Your task to perform on an android device: Clear the cart on newegg.com. Add macbook pro to the cart on newegg.com, then select checkout. Image 0: 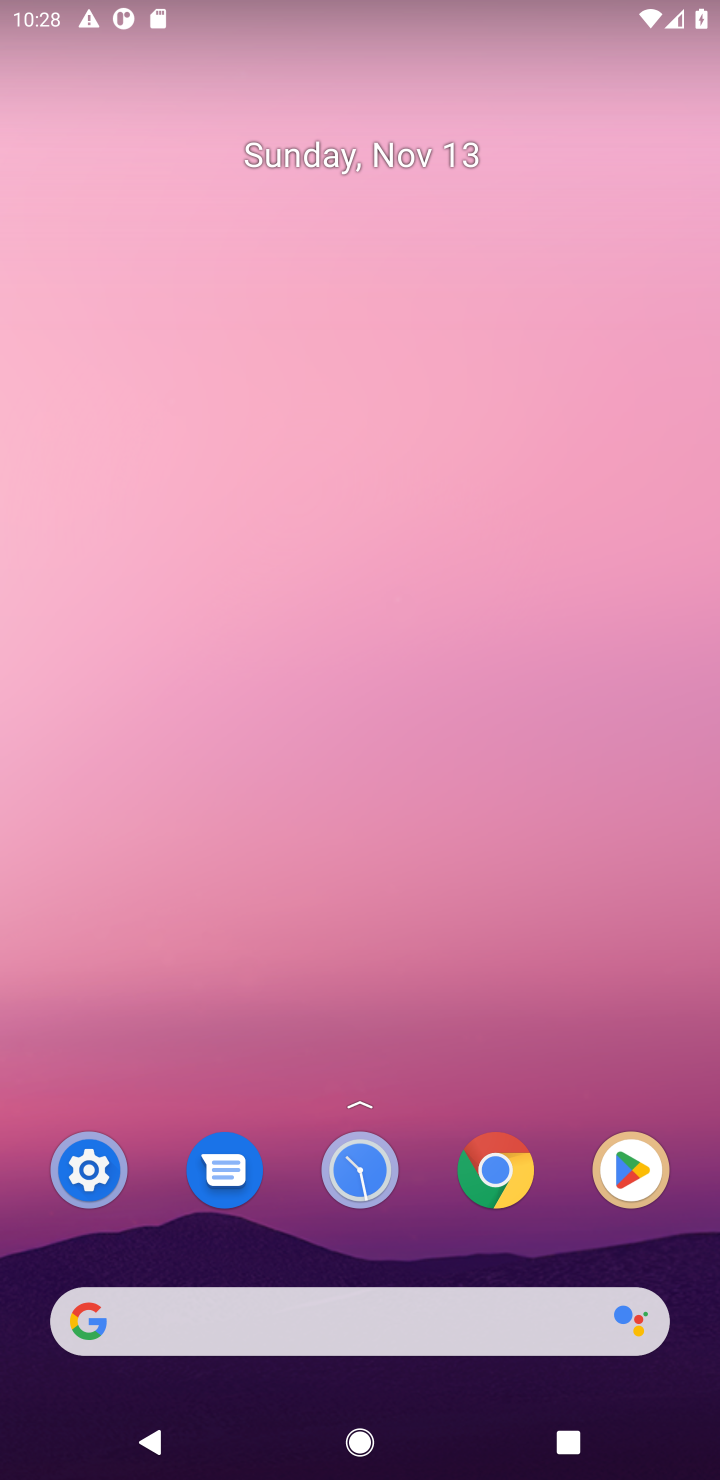
Step 0: click (401, 1303)
Your task to perform on an android device: Clear the cart on newegg.com. Add macbook pro to the cart on newegg.com, then select checkout. Image 1: 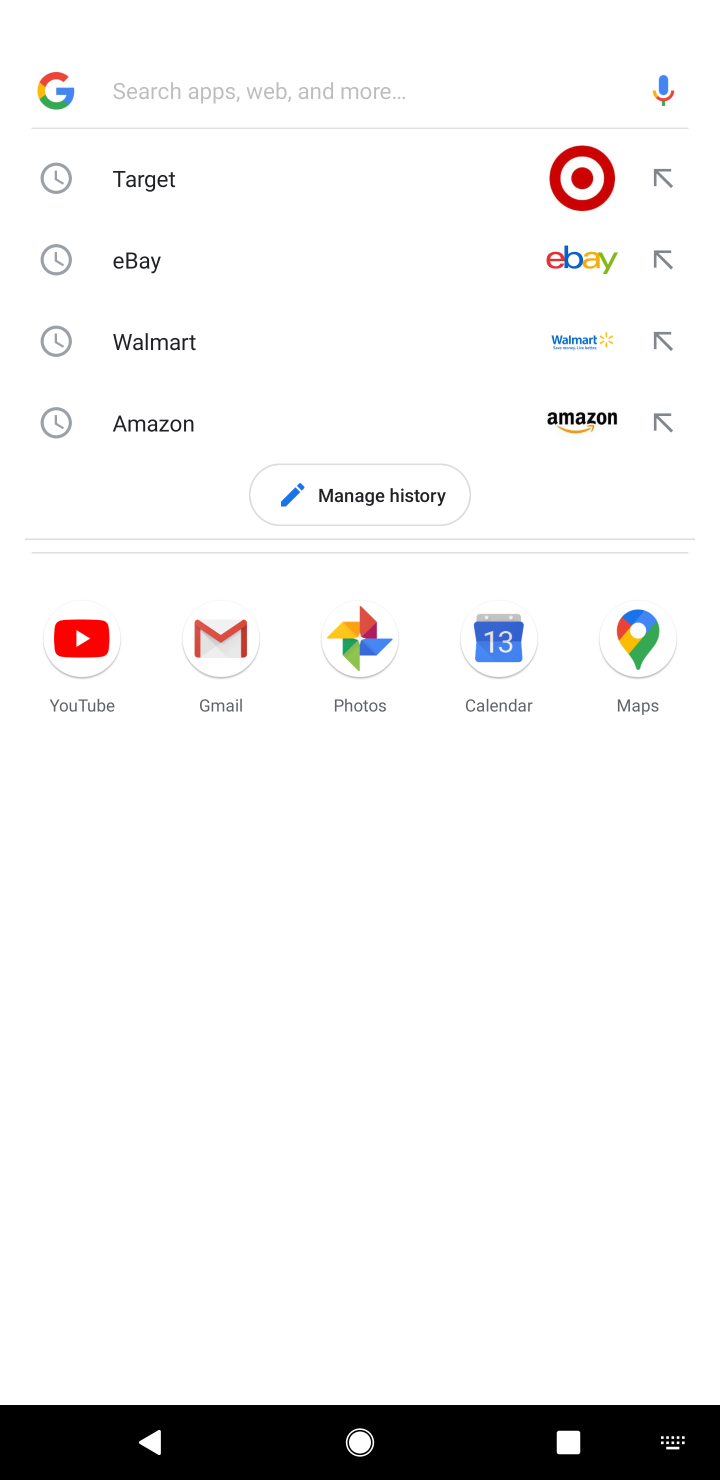
Step 1: type "newwegge"
Your task to perform on an android device: Clear the cart on newegg.com. Add macbook pro to the cart on newegg.com, then select checkout. Image 2: 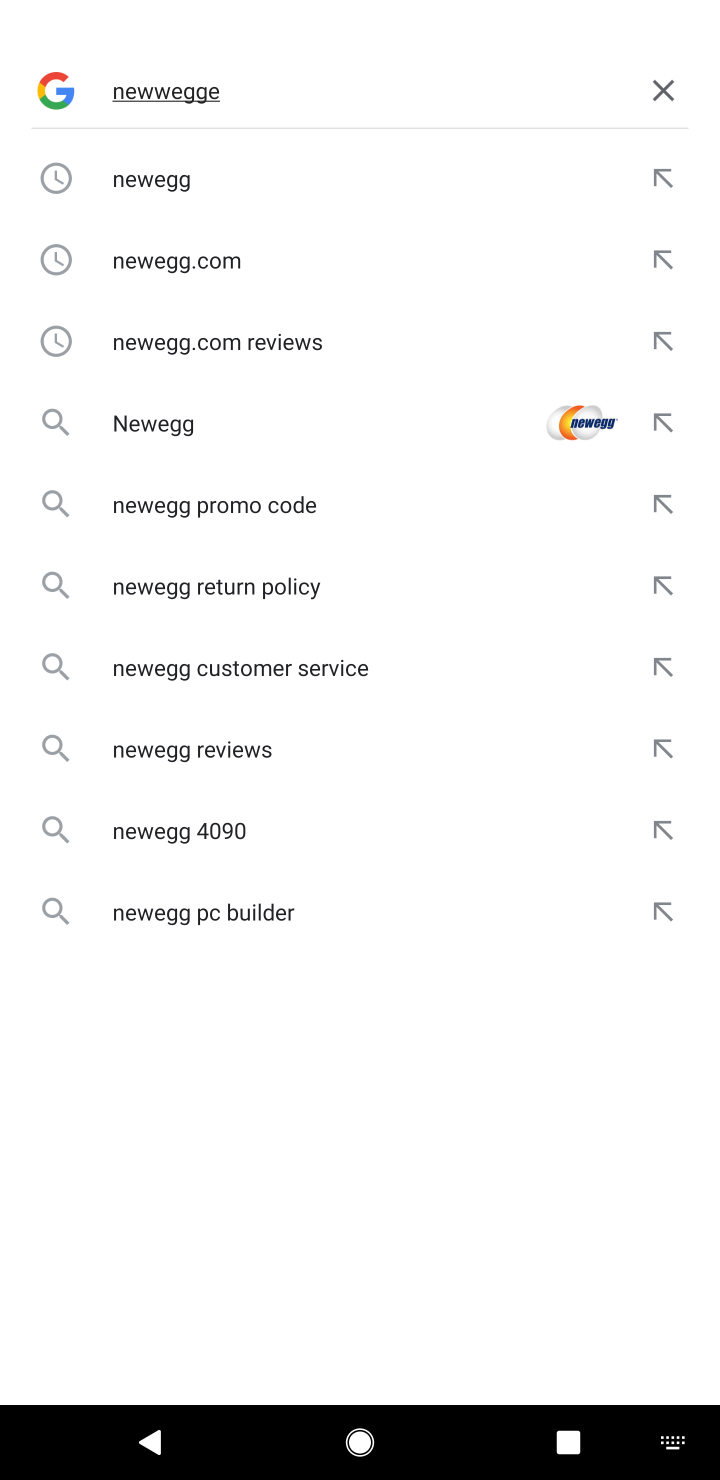
Step 2: click (318, 407)
Your task to perform on an android device: Clear the cart on newegg.com. Add macbook pro to the cart on newegg.com, then select checkout. Image 3: 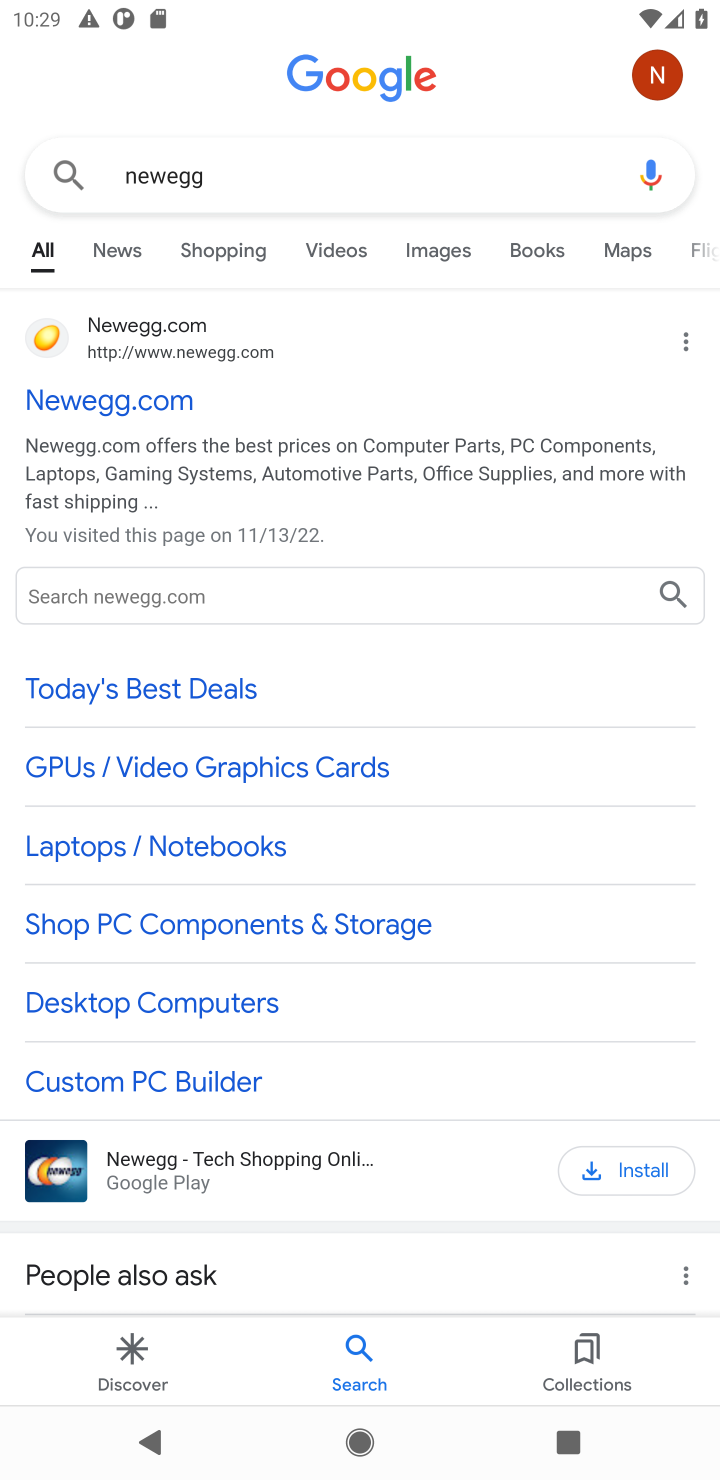
Step 3: click (142, 410)
Your task to perform on an android device: Clear the cart on newegg.com. Add macbook pro to the cart on newegg.com, then select checkout. Image 4: 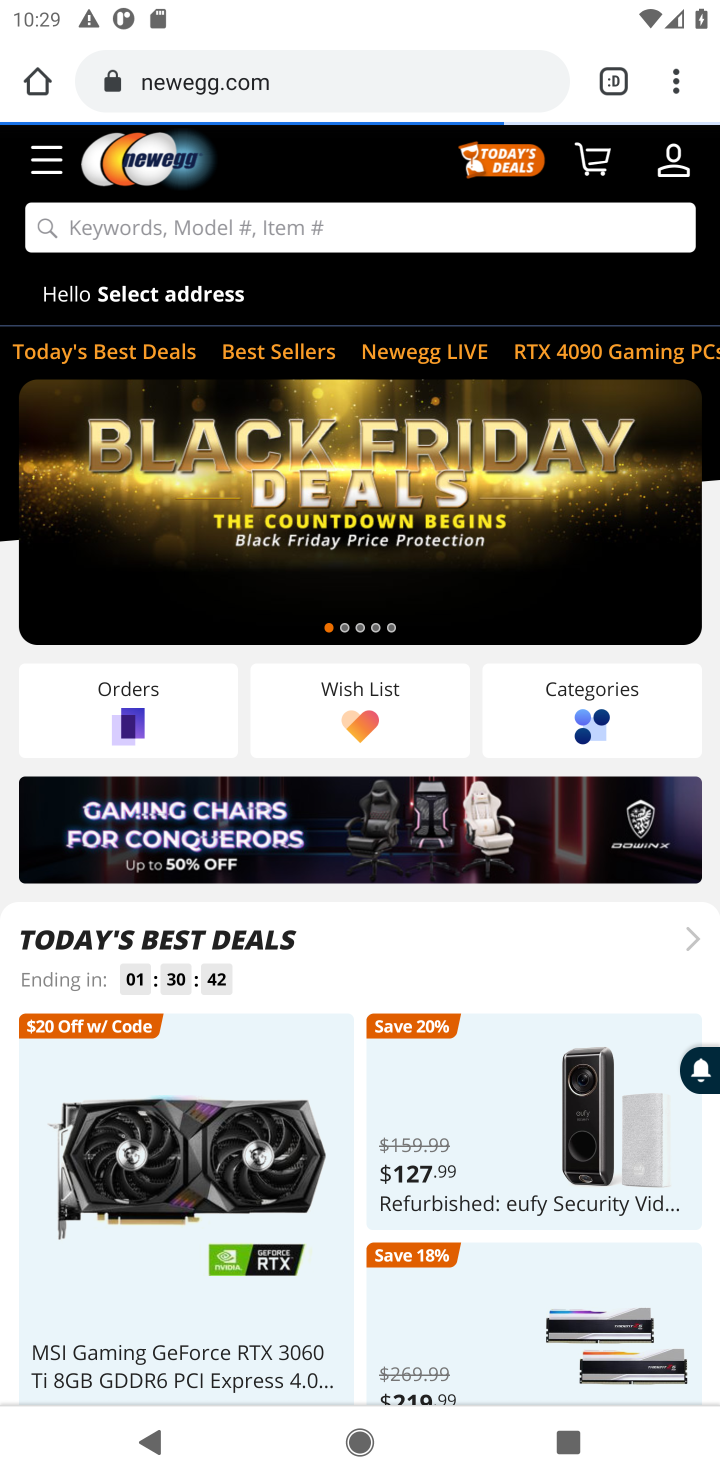
Step 4: task complete